Your task to perform on an android device: Open accessibility settings Image 0: 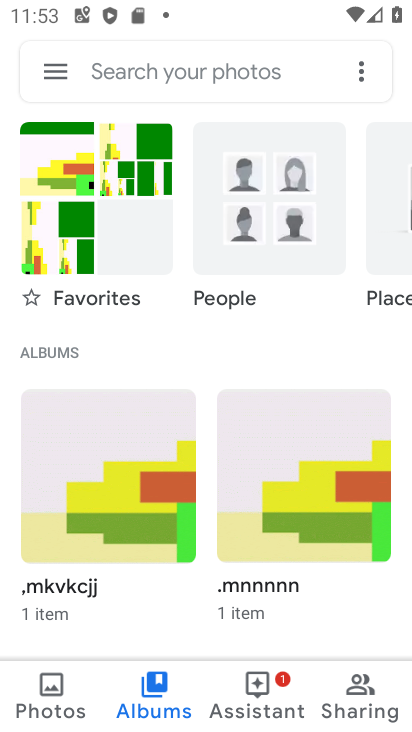
Step 0: press home button
Your task to perform on an android device: Open accessibility settings Image 1: 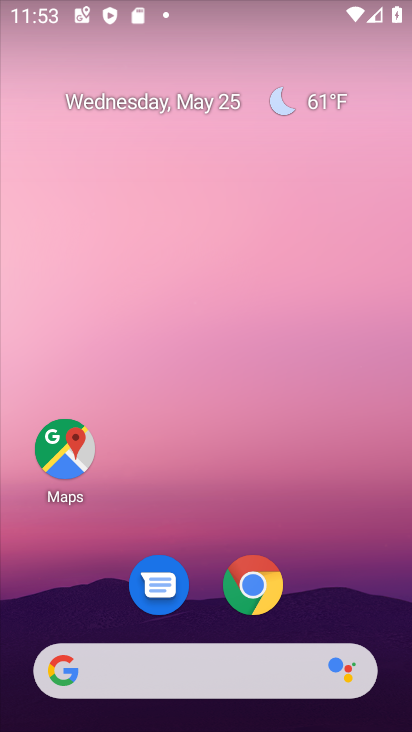
Step 1: drag from (224, 529) to (242, 29)
Your task to perform on an android device: Open accessibility settings Image 2: 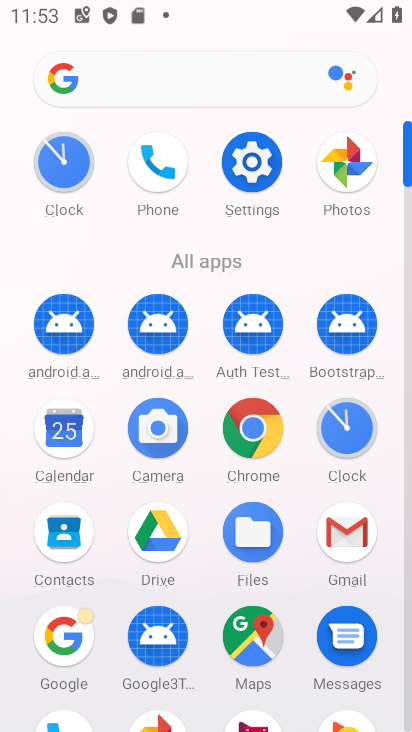
Step 2: click (241, 162)
Your task to perform on an android device: Open accessibility settings Image 3: 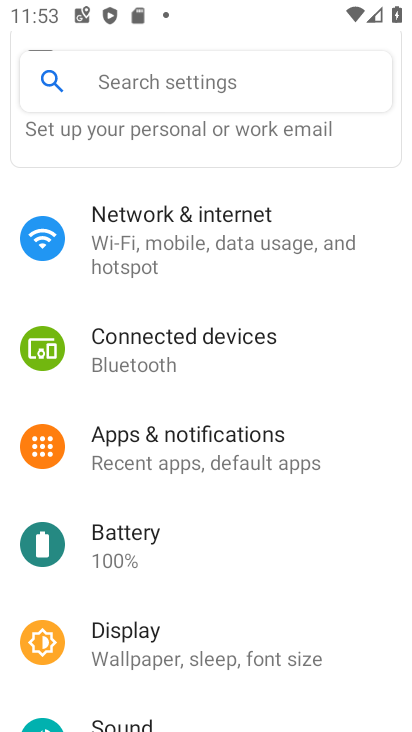
Step 3: drag from (264, 577) to (273, 105)
Your task to perform on an android device: Open accessibility settings Image 4: 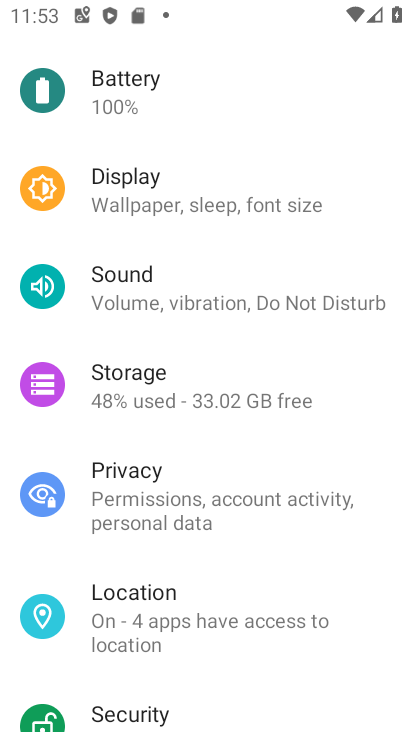
Step 4: drag from (208, 545) to (231, 65)
Your task to perform on an android device: Open accessibility settings Image 5: 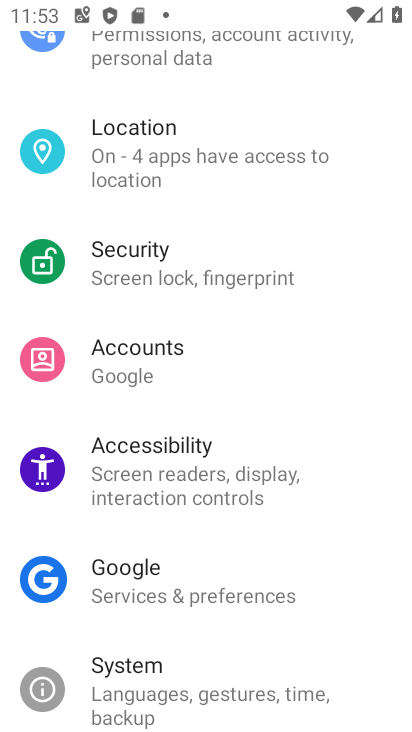
Step 5: click (179, 461)
Your task to perform on an android device: Open accessibility settings Image 6: 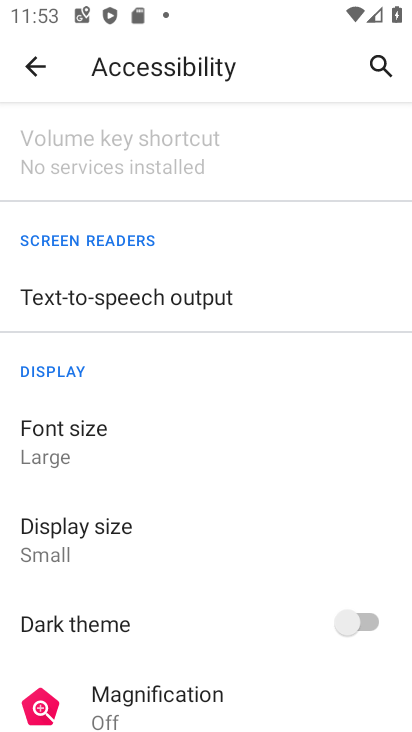
Step 6: task complete